Your task to perform on an android device: move a message to another label in the gmail app Image 0: 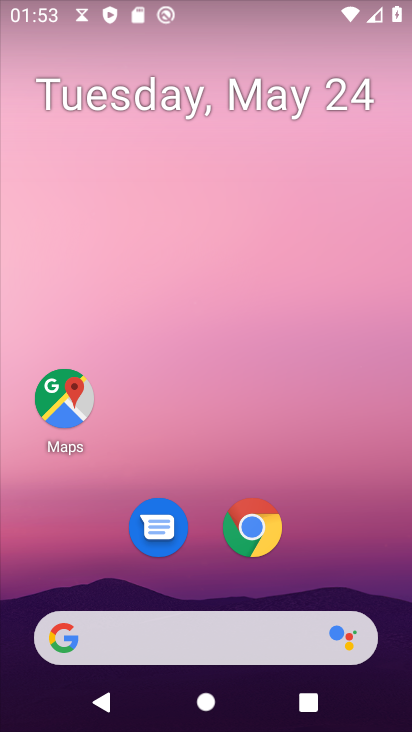
Step 0: press home button
Your task to perform on an android device: move a message to another label in the gmail app Image 1: 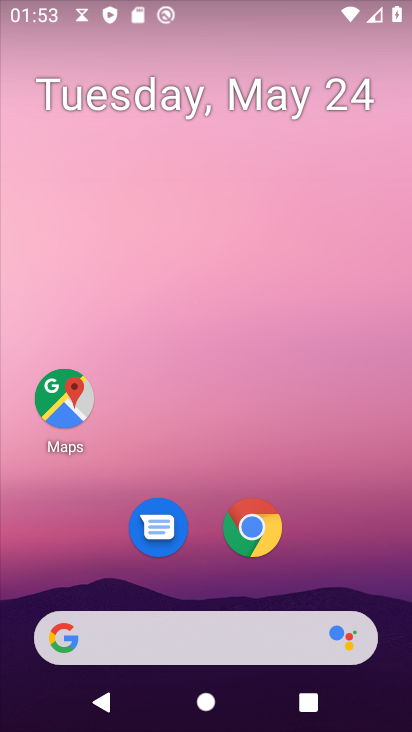
Step 1: drag from (194, 630) to (296, 137)
Your task to perform on an android device: move a message to another label in the gmail app Image 2: 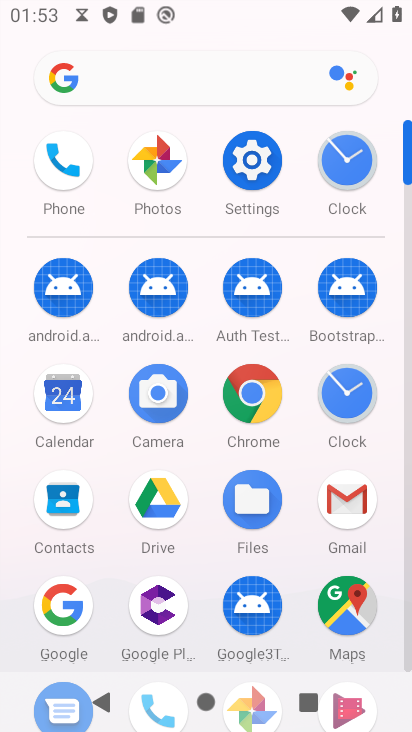
Step 2: click (351, 506)
Your task to perform on an android device: move a message to another label in the gmail app Image 3: 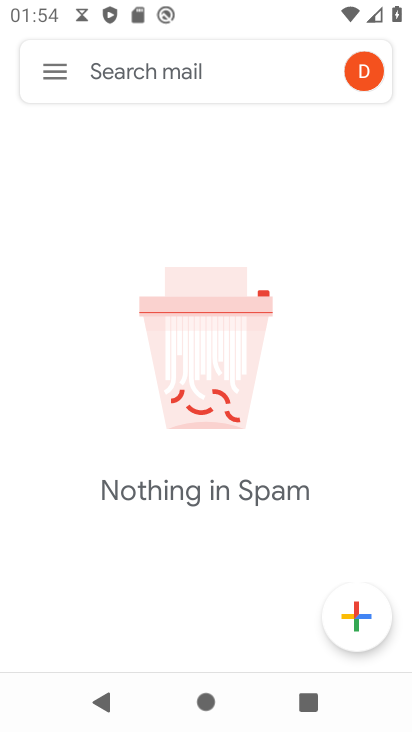
Step 3: task complete